Your task to perform on an android device: Go to display settings Image 0: 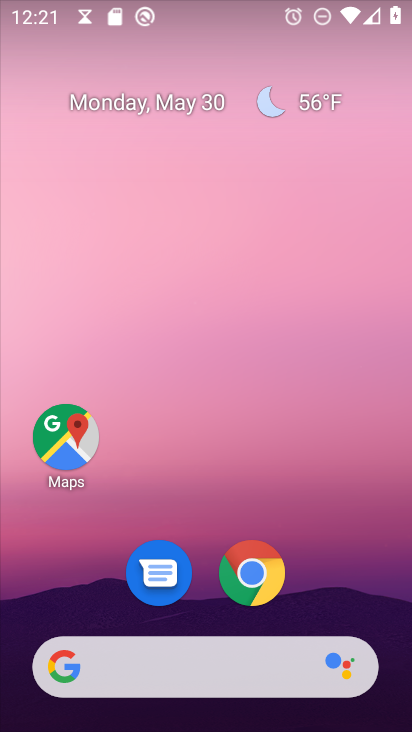
Step 0: drag from (304, 573) to (336, 19)
Your task to perform on an android device: Go to display settings Image 1: 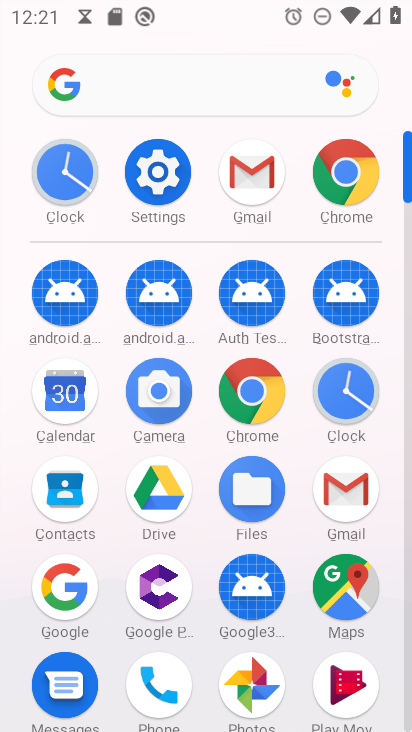
Step 1: click (163, 174)
Your task to perform on an android device: Go to display settings Image 2: 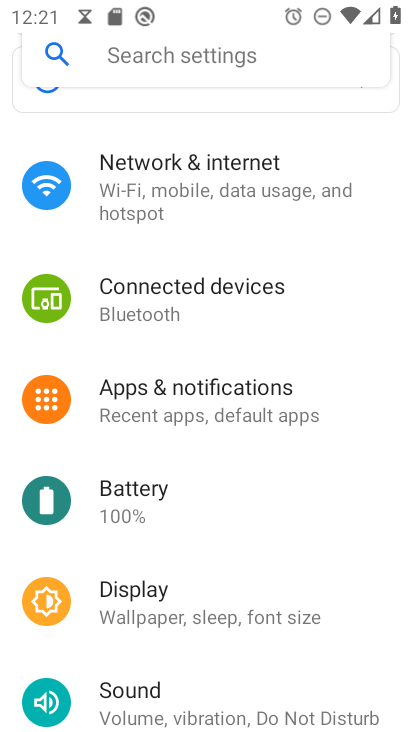
Step 2: click (200, 582)
Your task to perform on an android device: Go to display settings Image 3: 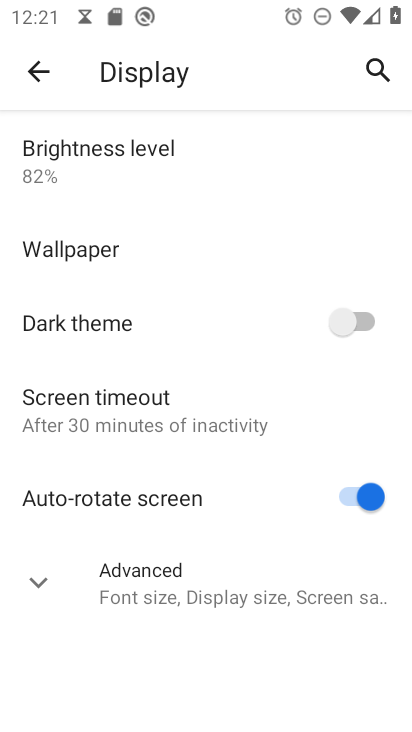
Step 3: task complete